Your task to perform on an android device: Do I have any events this weekend? Image 0: 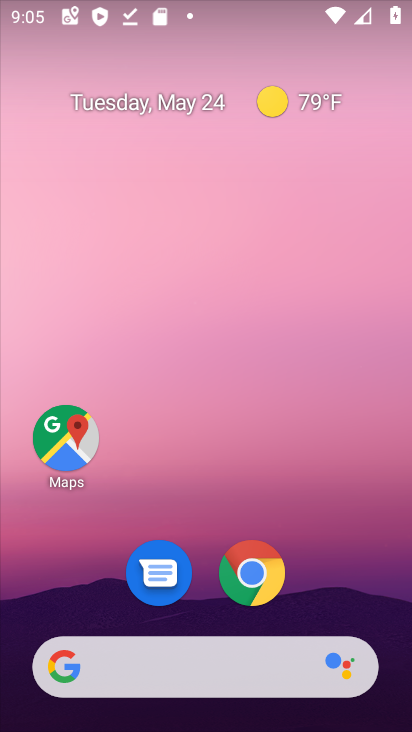
Step 0: drag from (265, 721) to (173, 295)
Your task to perform on an android device: Do I have any events this weekend? Image 1: 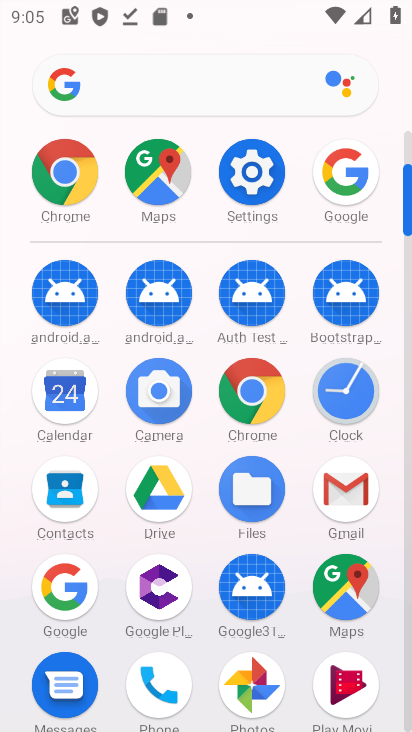
Step 1: click (45, 385)
Your task to perform on an android device: Do I have any events this weekend? Image 2: 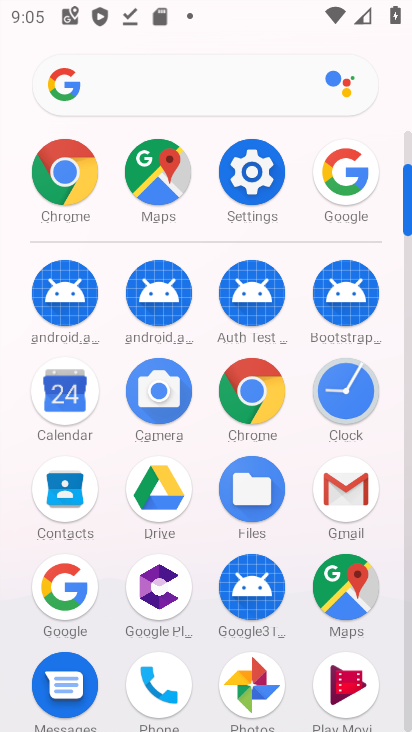
Step 2: click (50, 385)
Your task to perform on an android device: Do I have any events this weekend? Image 3: 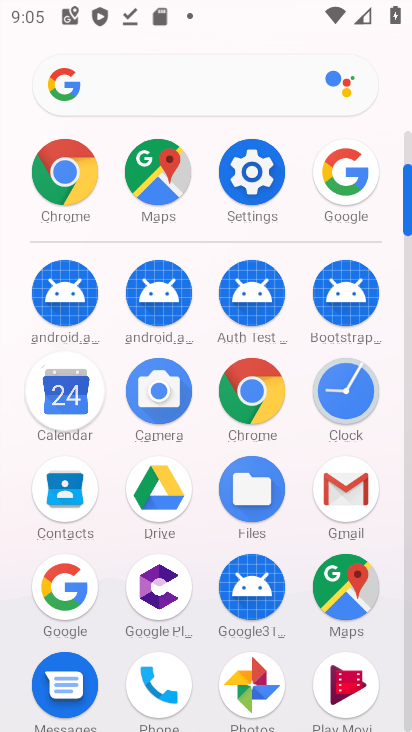
Step 3: click (55, 382)
Your task to perform on an android device: Do I have any events this weekend? Image 4: 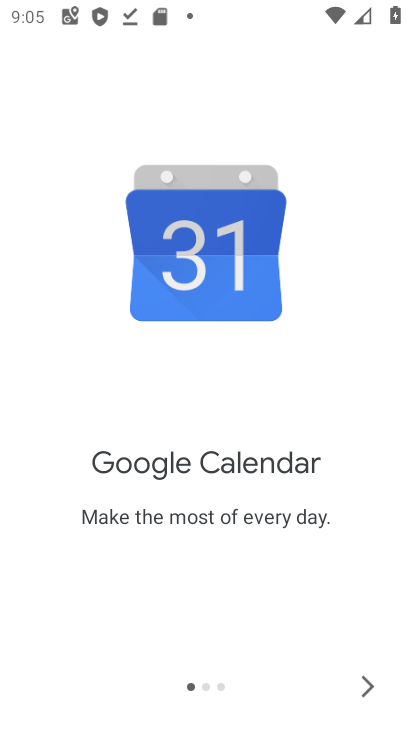
Step 4: click (376, 683)
Your task to perform on an android device: Do I have any events this weekend? Image 5: 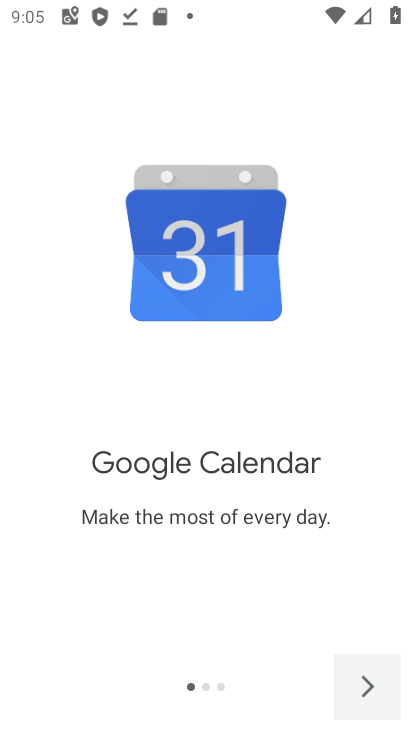
Step 5: click (374, 682)
Your task to perform on an android device: Do I have any events this weekend? Image 6: 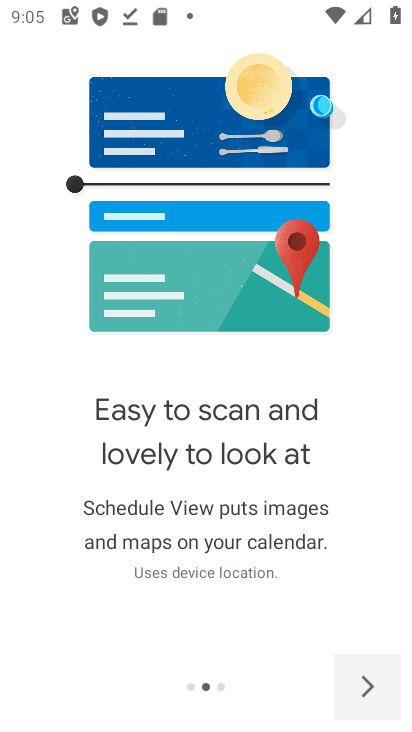
Step 6: click (374, 682)
Your task to perform on an android device: Do I have any events this weekend? Image 7: 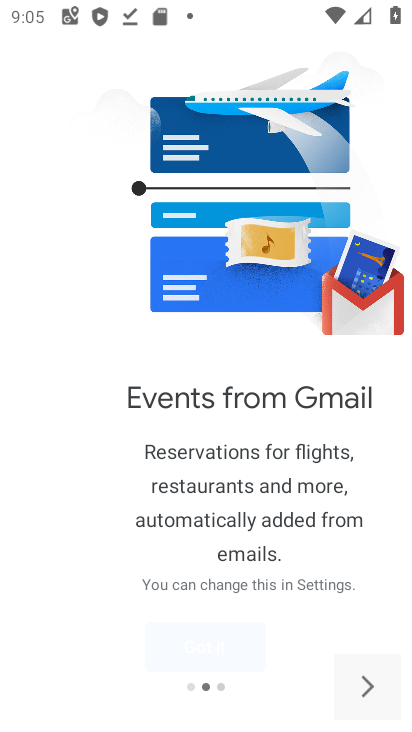
Step 7: click (374, 682)
Your task to perform on an android device: Do I have any events this weekend? Image 8: 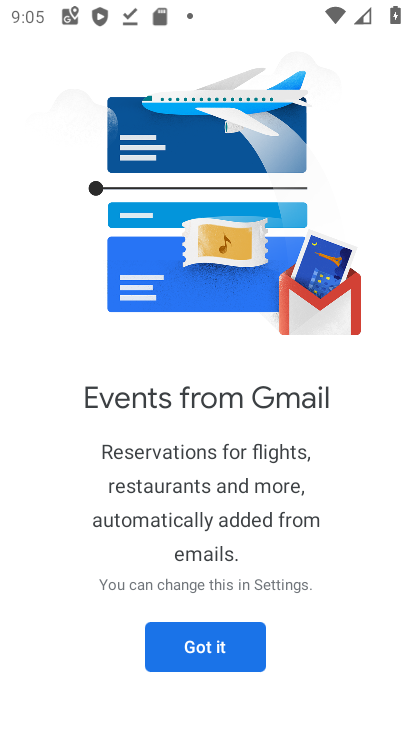
Step 8: click (369, 681)
Your task to perform on an android device: Do I have any events this weekend? Image 9: 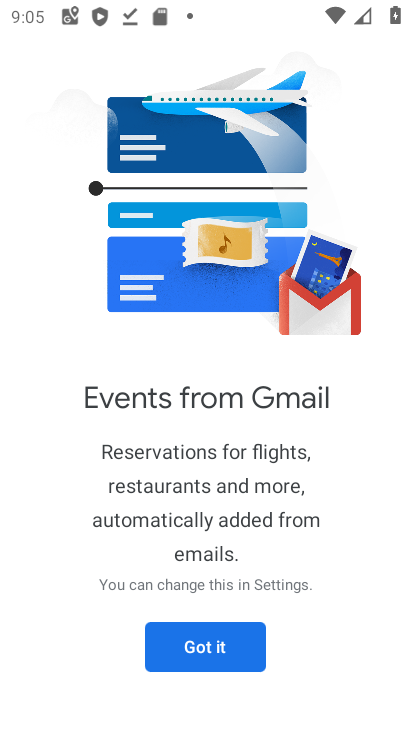
Step 9: click (201, 627)
Your task to perform on an android device: Do I have any events this weekend? Image 10: 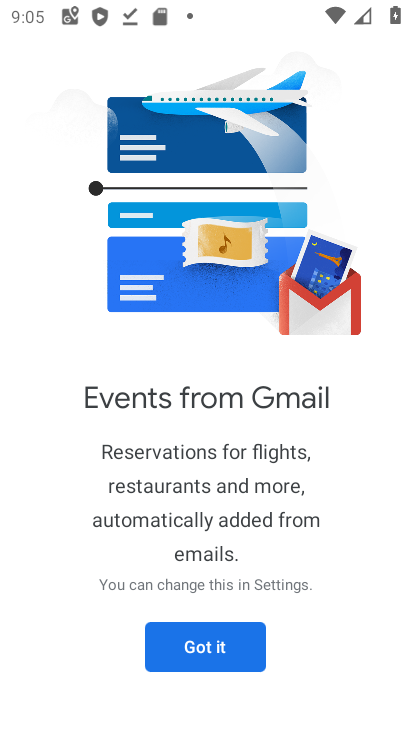
Step 10: click (204, 625)
Your task to perform on an android device: Do I have any events this weekend? Image 11: 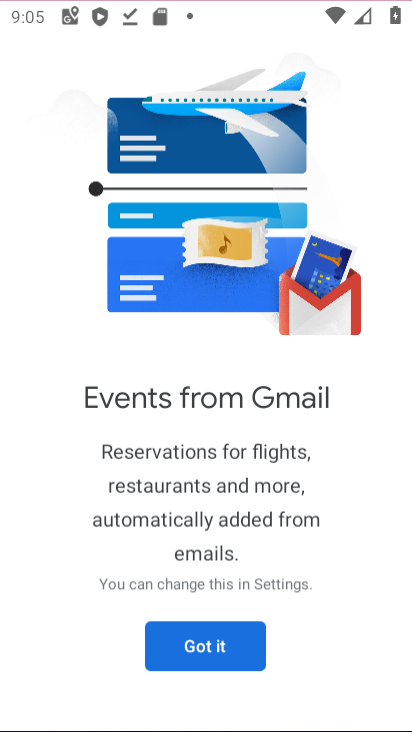
Step 11: click (206, 623)
Your task to perform on an android device: Do I have any events this weekend? Image 12: 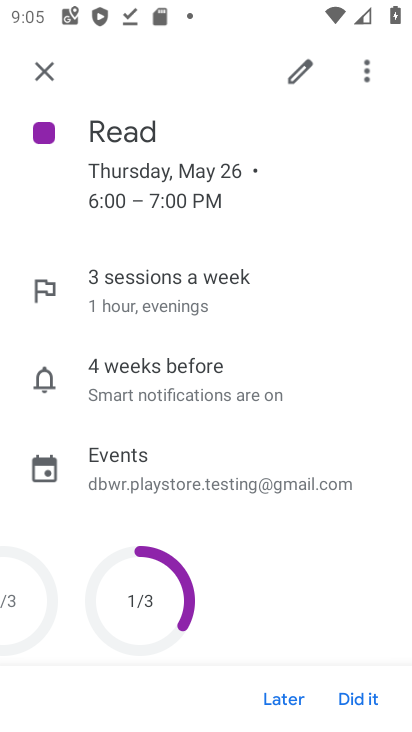
Step 12: task complete